Your task to perform on an android device: change text size in settings app Image 0: 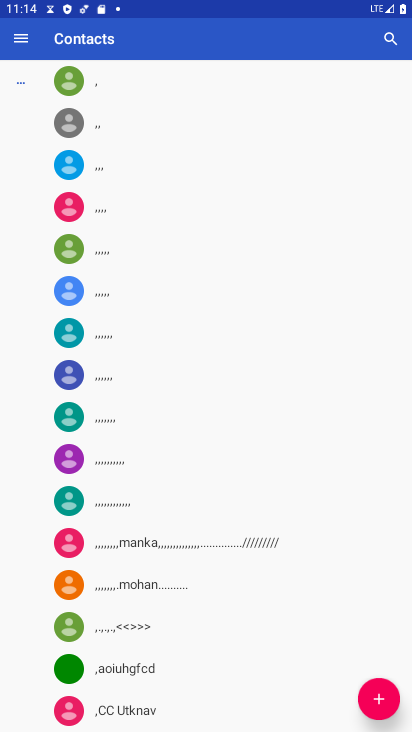
Step 0: press back button
Your task to perform on an android device: change text size in settings app Image 1: 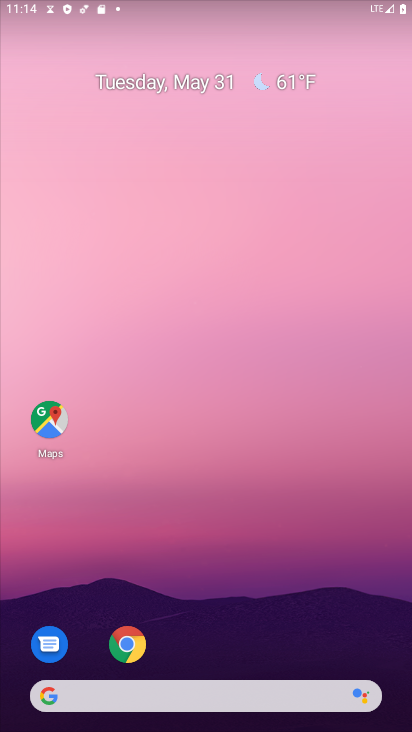
Step 1: drag from (222, 592) to (249, 63)
Your task to perform on an android device: change text size in settings app Image 2: 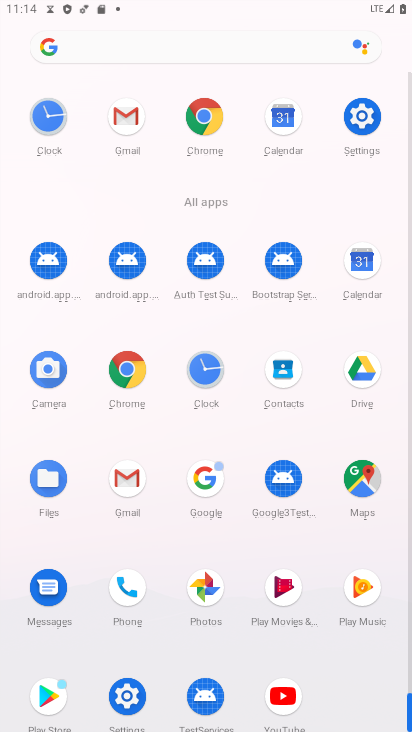
Step 2: click (372, 111)
Your task to perform on an android device: change text size in settings app Image 3: 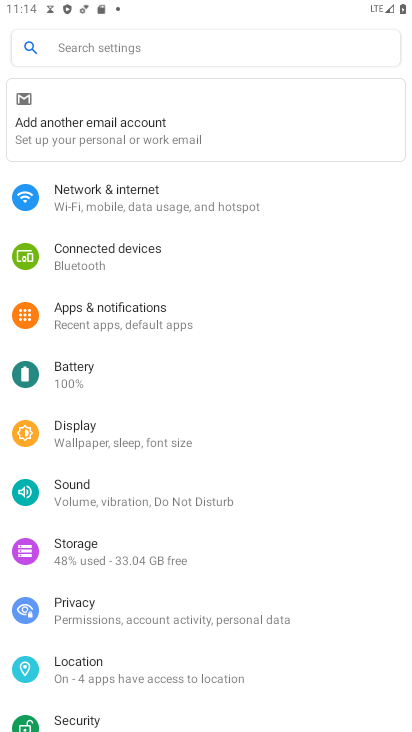
Step 3: click (170, 60)
Your task to perform on an android device: change text size in settings app Image 4: 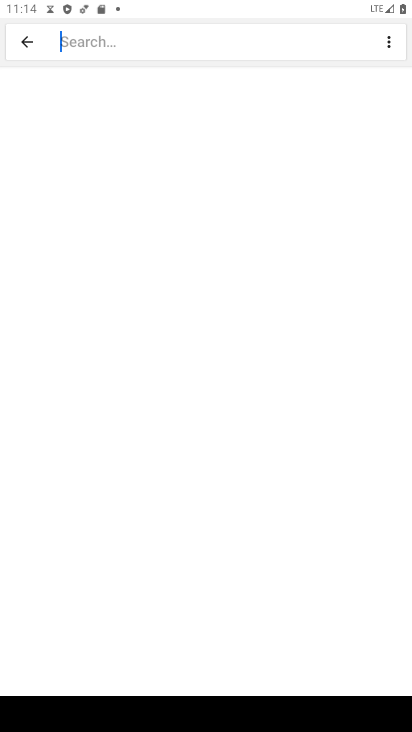
Step 4: click (149, 44)
Your task to perform on an android device: change text size in settings app Image 5: 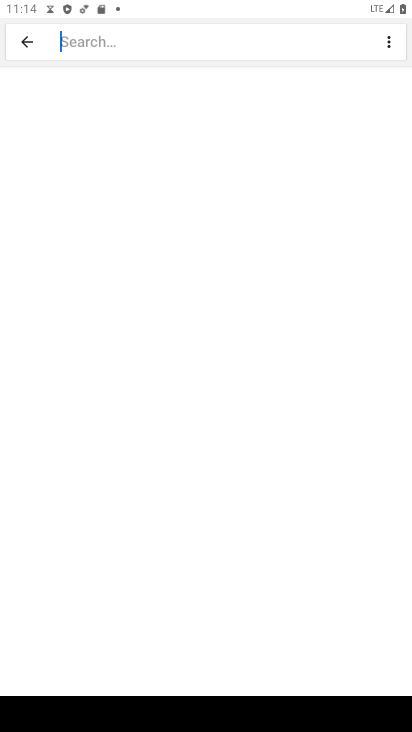
Step 5: type "text size"
Your task to perform on an android device: change text size in settings app Image 6: 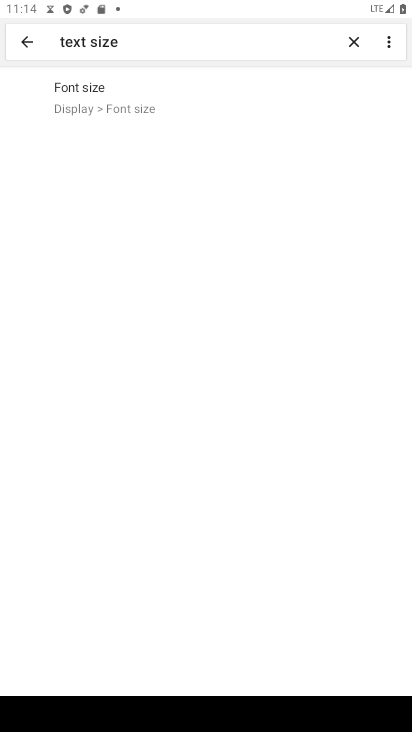
Step 6: click (138, 99)
Your task to perform on an android device: change text size in settings app Image 7: 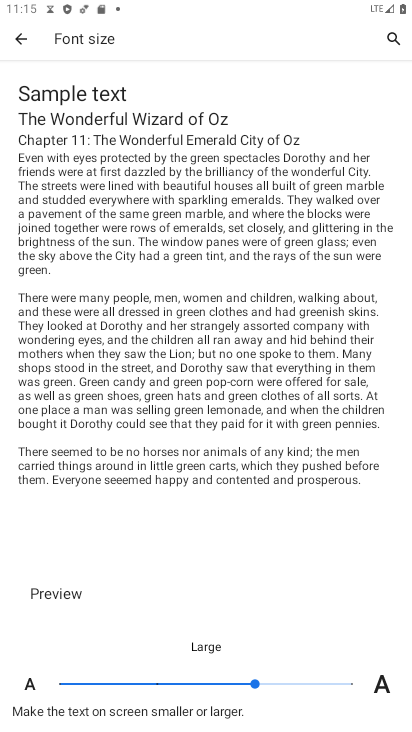
Step 7: drag from (260, 681) to (211, 684)
Your task to perform on an android device: change text size in settings app Image 8: 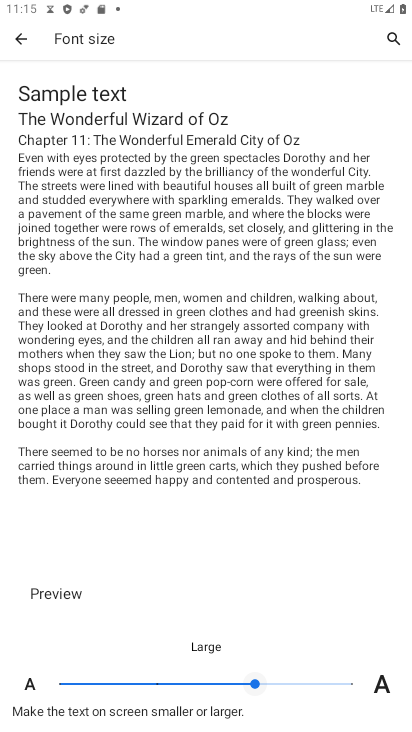
Step 8: click (183, 683)
Your task to perform on an android device: change text size in settings app Image 9: 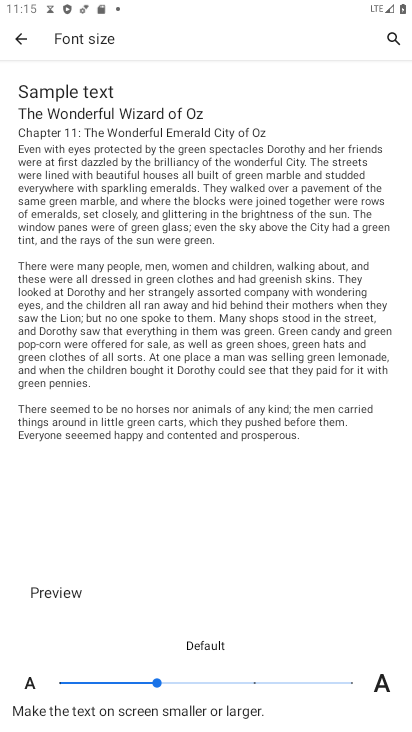
Step 9: task complete